Your task to perform on an android device: Open privacy settings Image 0: 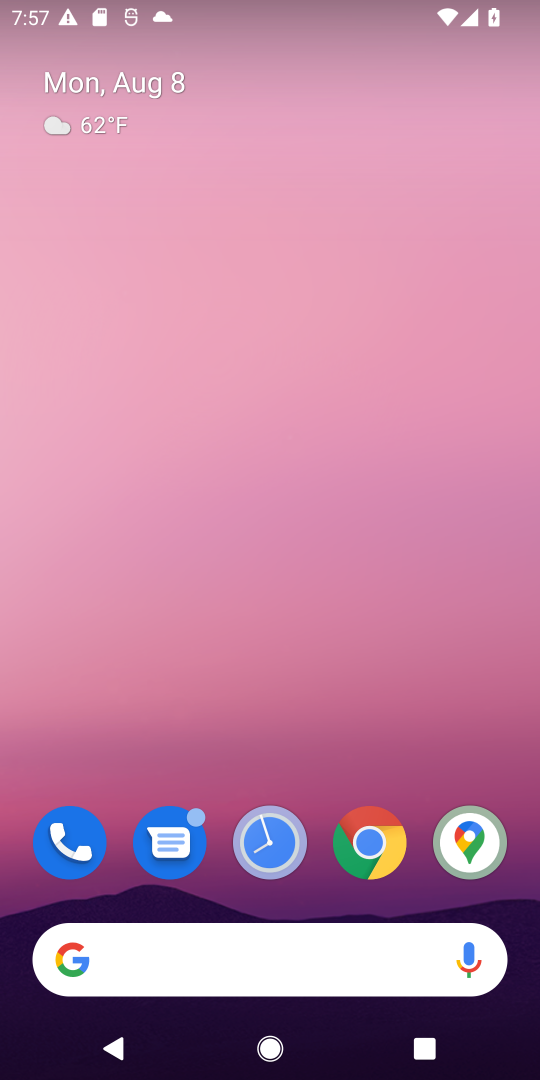
Step 0: drag from (279, 725) to (372, 1)
Your task to perform on an android device: Open privacy settings Image 1: 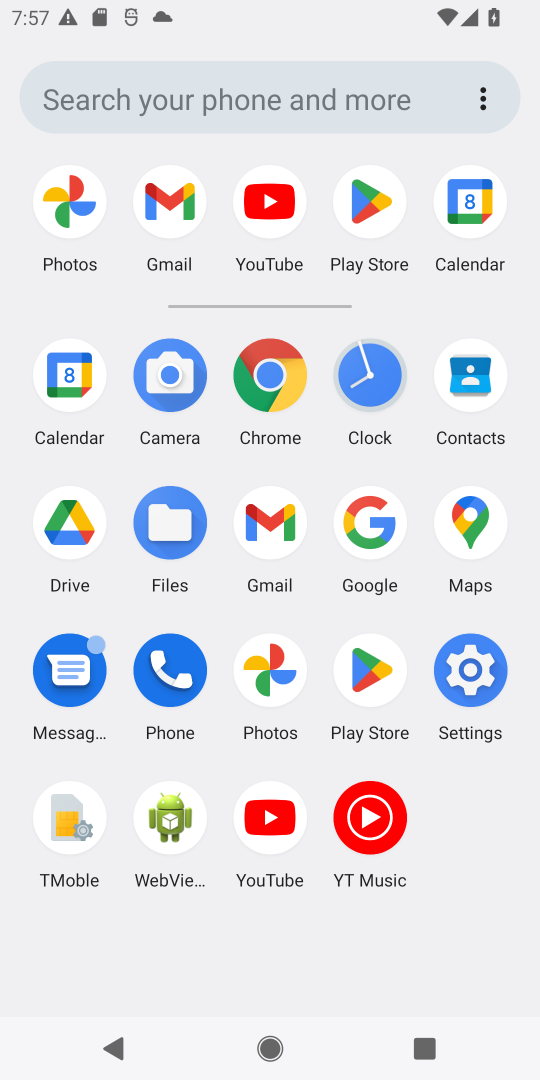
Step 1: click (465, 662)
Your task to perform on an android device: Open privacy settings Image 2: 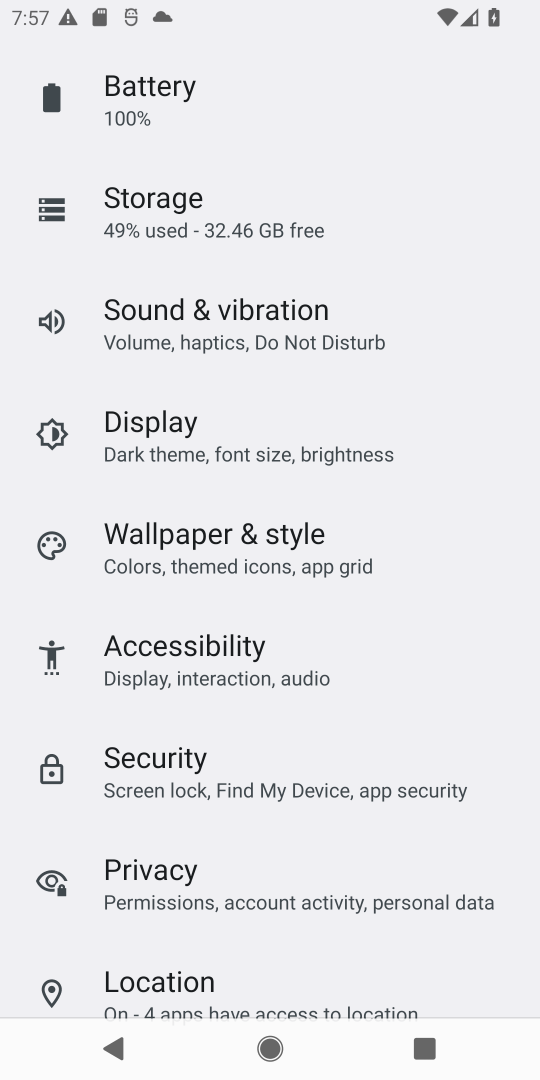
Step 2: click (337, 866)
Your task to perform on an android device: Open privacy settings Image 3: 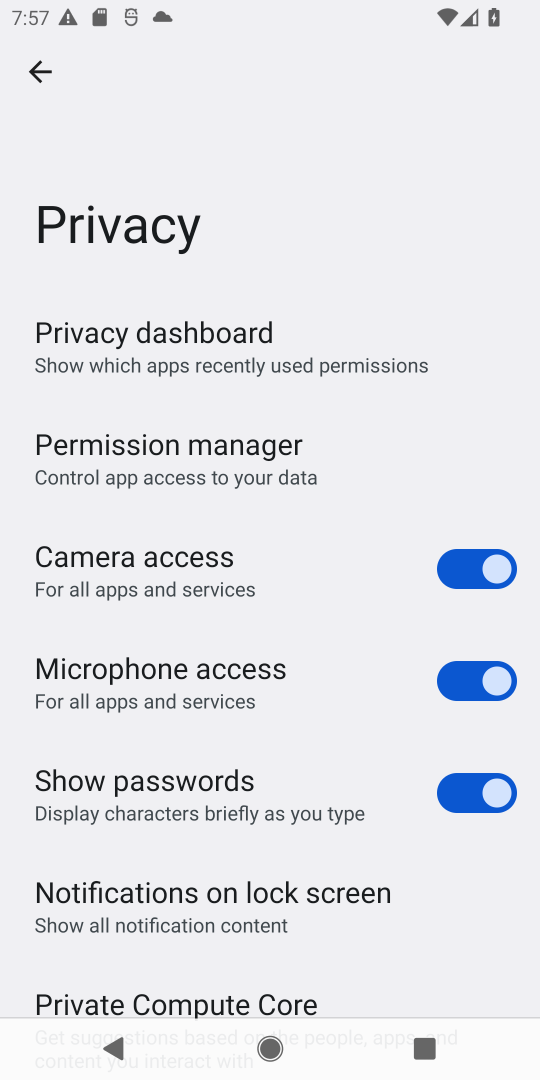
Step 3: task complete